Your task to perform on an android device: clear history in the chrome app Image 0: 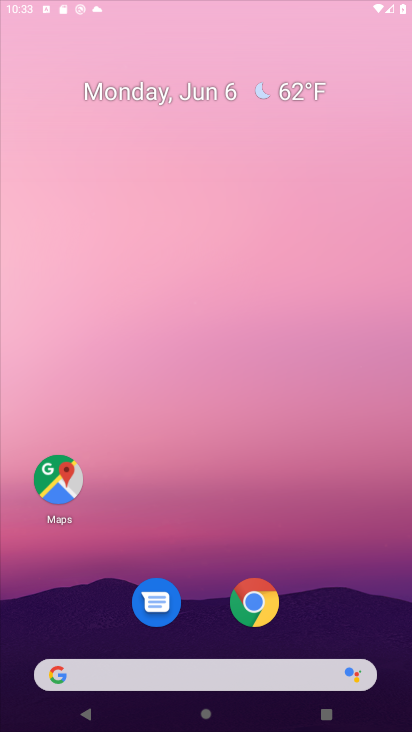
Step 0: press home button
Your task to perform on an android device: clear history in the chrome app Image 1: 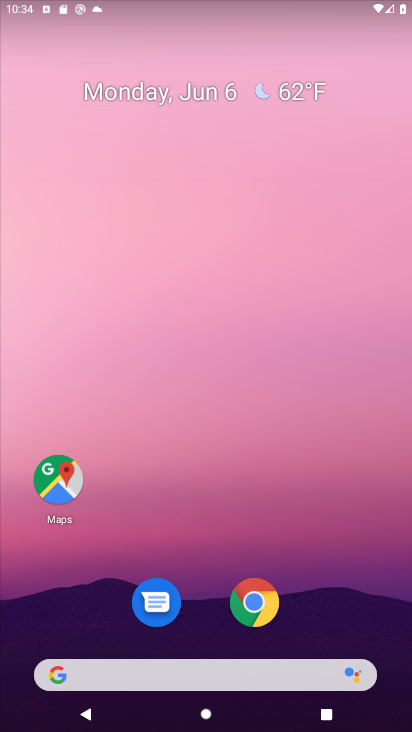
Step 1: click (252, 613)
Your task to perform on an android device: clear history in the chrome app Image 2: 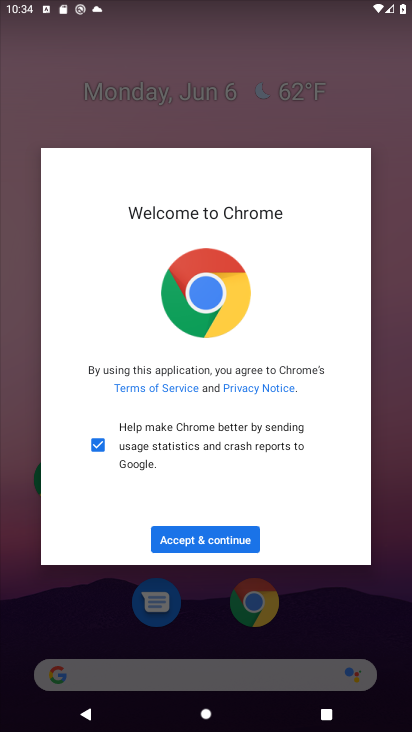
Step 2: click (231, 539)
Your task to perform on an android device: clear history in the chrome app Image 3: 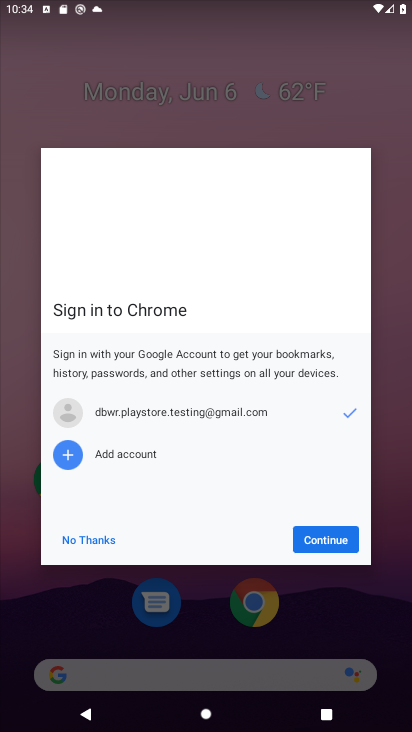
Step 3: click (329, 541)
Your task to perform on an android device: clear history in the chrome app Image 4: 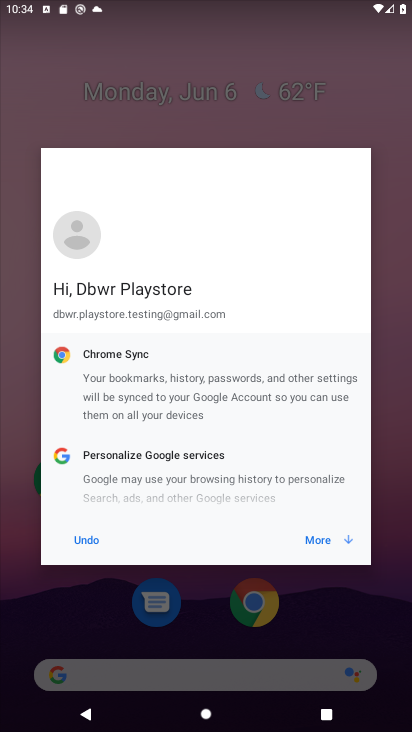
Step 4: click (329, 537)
Your task to perform on an android device: clear history in the chrome app Image 5: 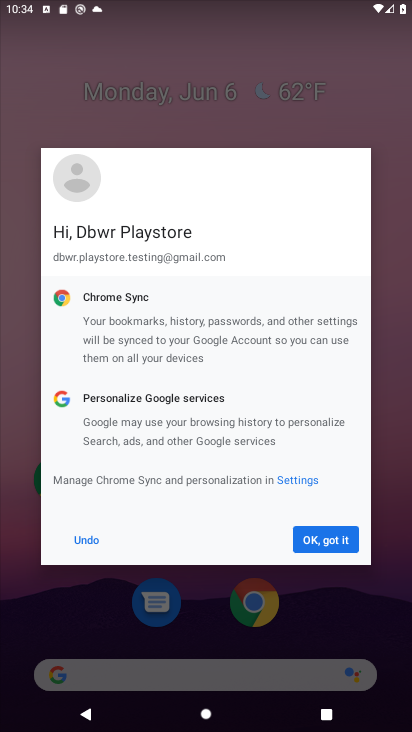
Step 5: click (329, 537)
Your task to perform on an android device: clear history in the chrome app Image 6: 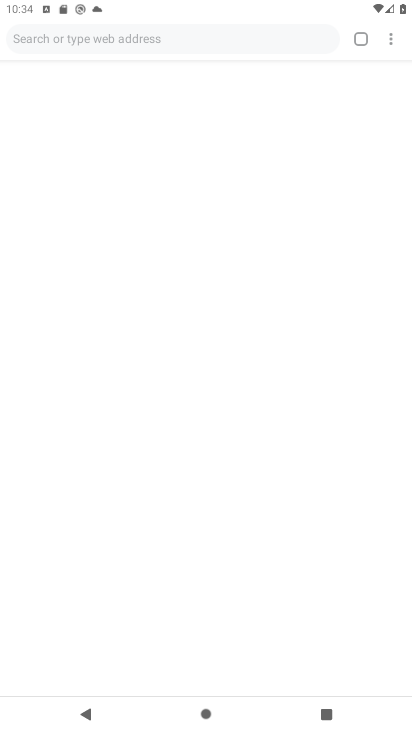
Step 6: click (329, 537)
Your task to perform on an android device: clear history in the chrome app Image 7: 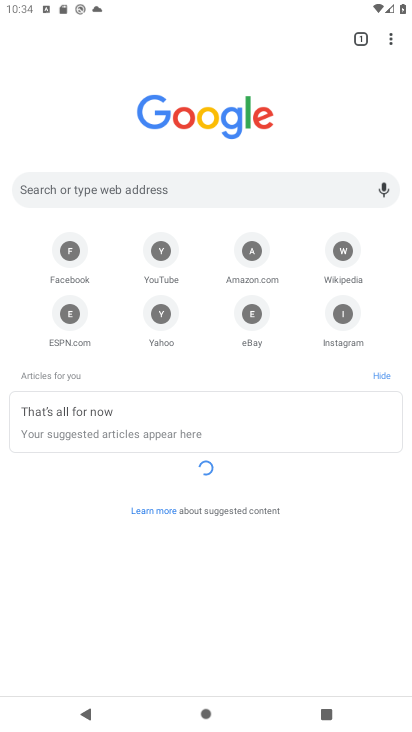
Step 7: click (393, 40)
Your task to perform on an android device: clear history in the chrome app Image 8: 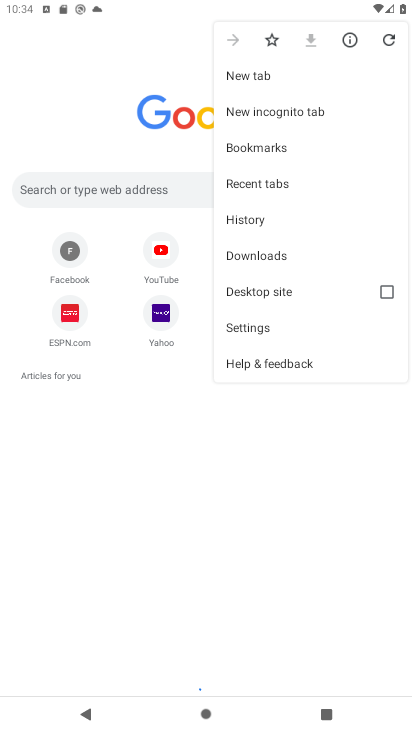
Step 8: click (243, 219)
Your task to perform on an android device: clear history in the chrome app Image 9: 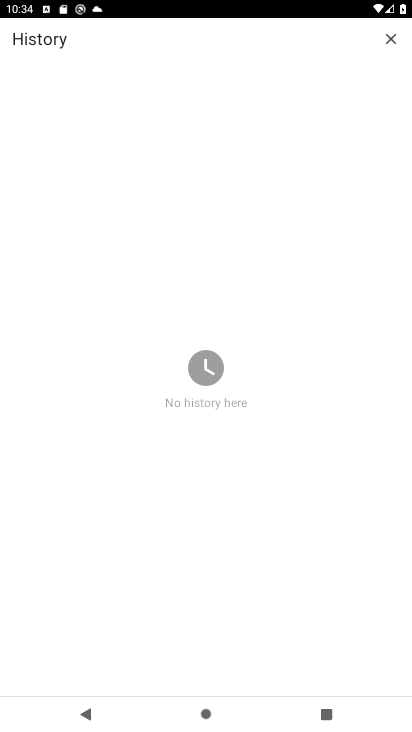
Step 9: task complete